Your task to perform on an android device: turn off javascript in the chrome app Image 0: 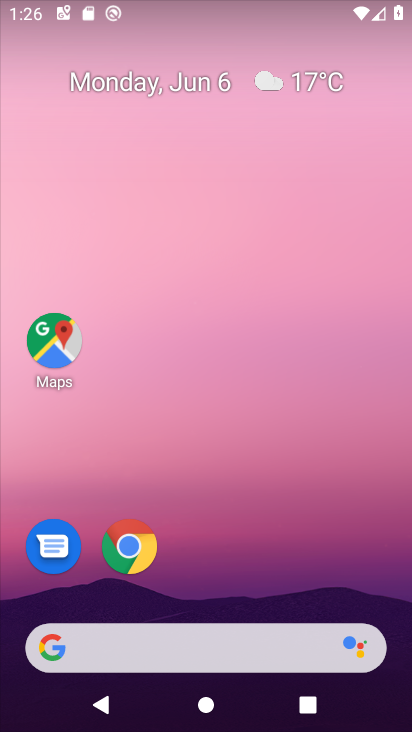
Step 0: click (131, 550)
Your task to perform on an android device: turn off javascript in the chrome app Image 1: 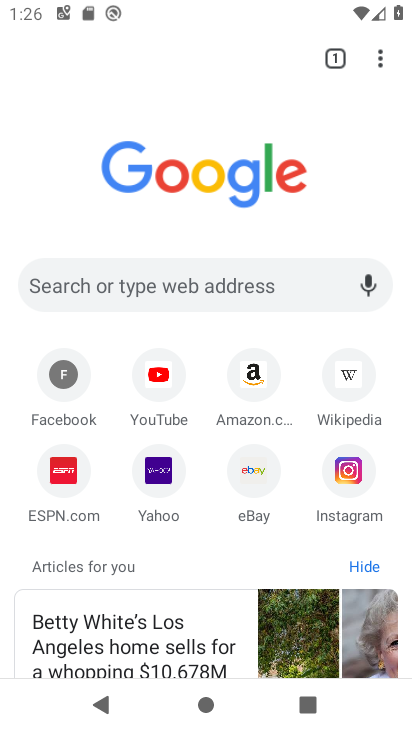
Step 1: drag from (387, 57) to (192, 498)
Your task to perform on an android device: turn off javascript in the chrome app Image 2: 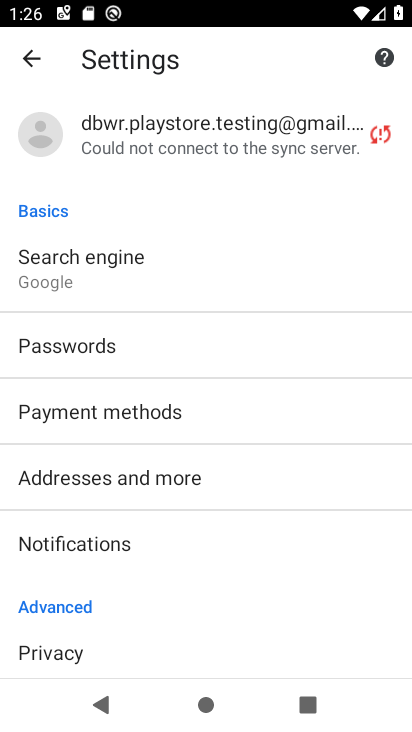
Step 2: drag from (117, 629) to (232, 3)
Your task to perform on an android device: turn off javascript in the chrome app Image 3: 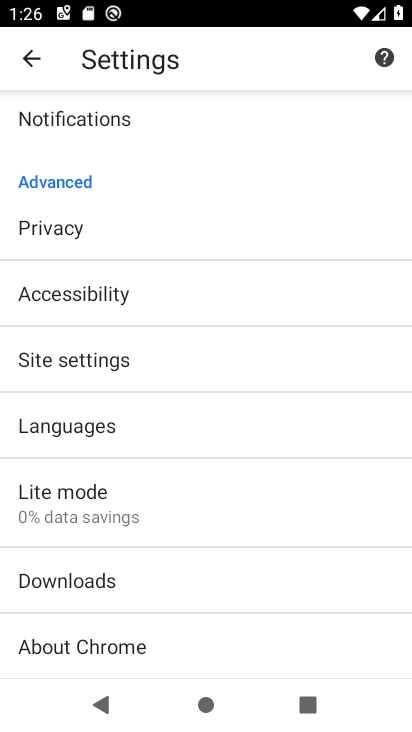
Step 3: click (112, 352)
Your task to perform on an android device: turn off javascript in the chrome app Image 4: 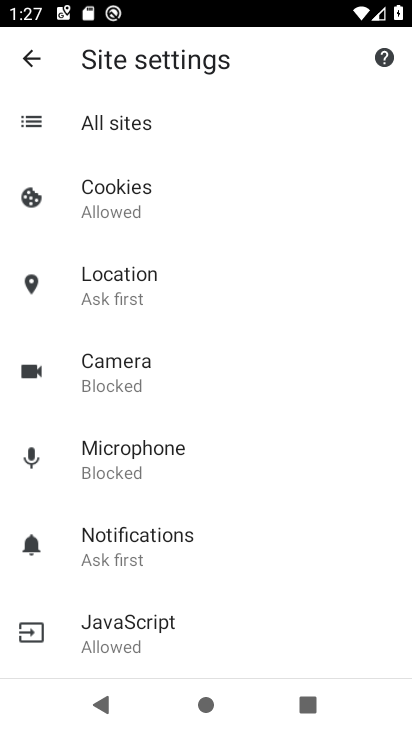
Step 4: click (134, 611)
Your task to perform on an android device: turn off javascript in the chrome app Image 5: 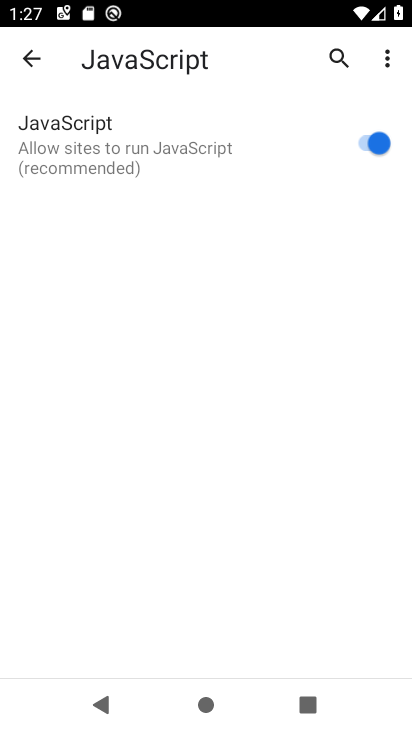
Step 5: click (369, 150)
Your task to perform on an android device: turn off javascript in the chrome app Image 6: 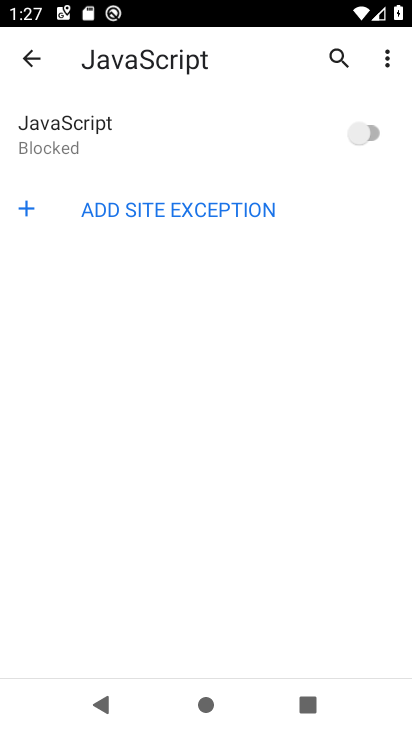
Step 6: task complete